Your task to perform on an android device: toggle wifi Image 0: 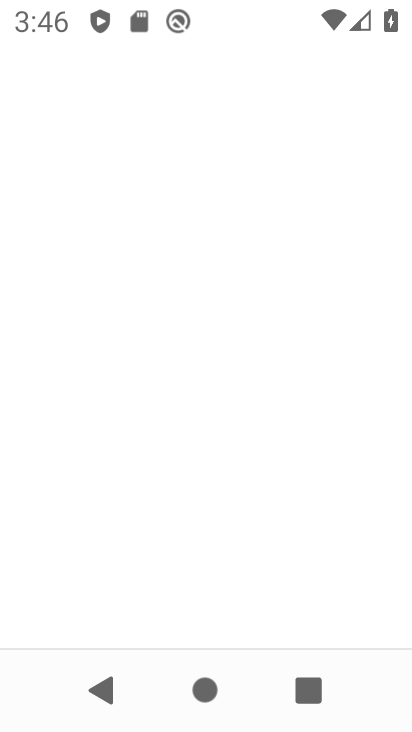
Step 0: drag from (12, 483) to (205, 157)
Your task to perform on an android device: toggle wifi Image 1: 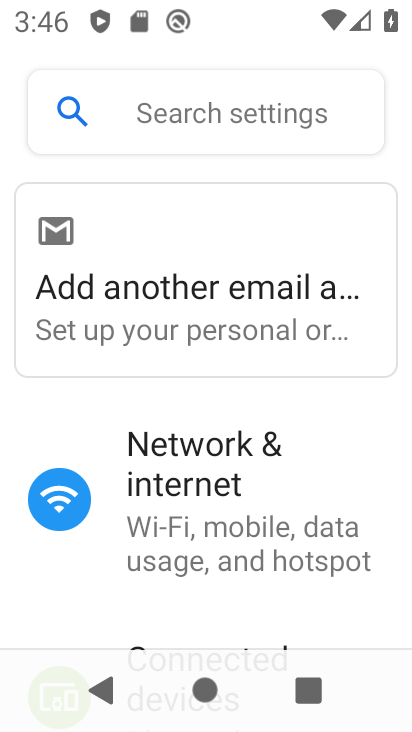
Step 1: press home button
Your task to perform on an android device: toggle wifi Image 2: 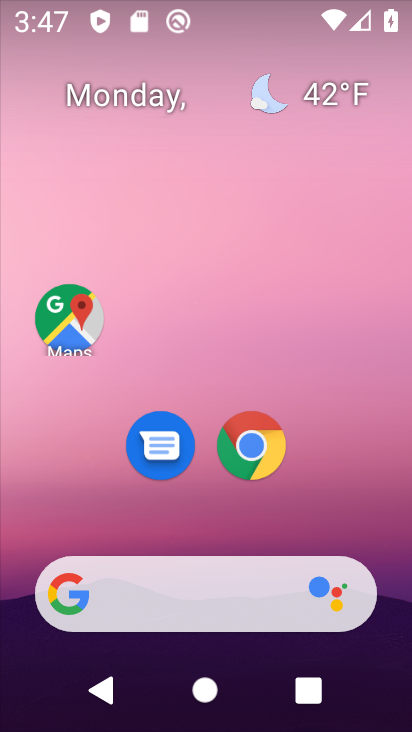
Step 2: drag from (145, 11) to (202, 420)
Your task to perform on an android device: toggle wifi Image 3: 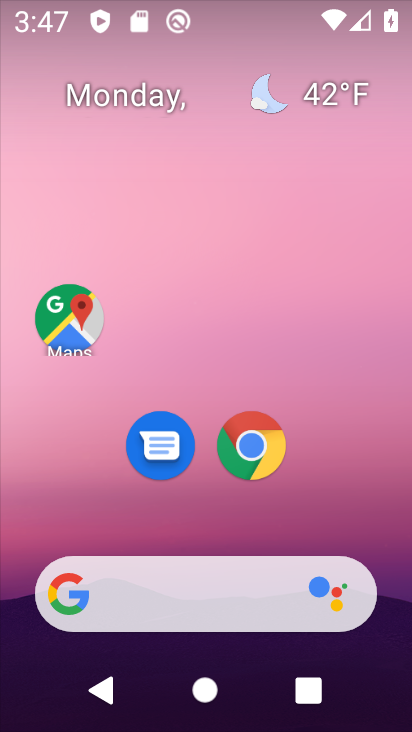
Step 3: drag from (251, 5) to (246, 446)
Your task to perform on an android device: toggle wifi Image 4: 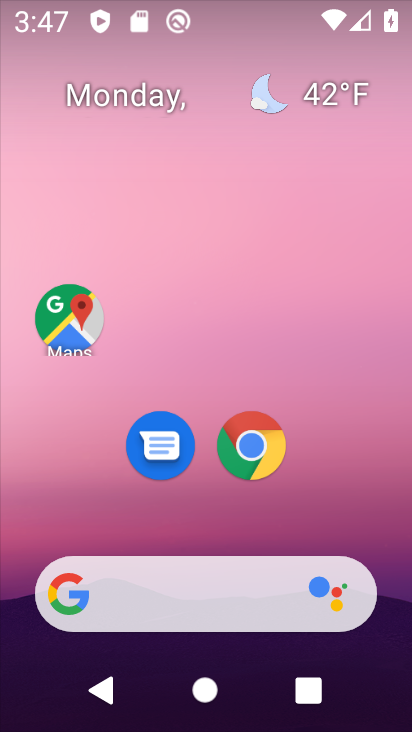
Step 4: drag from (217, 4) to (235, 464)
Your task to perform on an android device: toggle wifi Image 5: 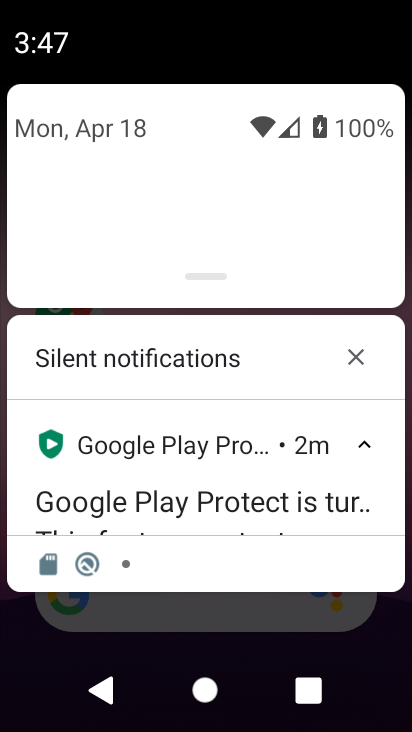
Step 5: drag from (186, 2) to (204, 399)
Your task to perform on an android device: toggle wifi Image 6: 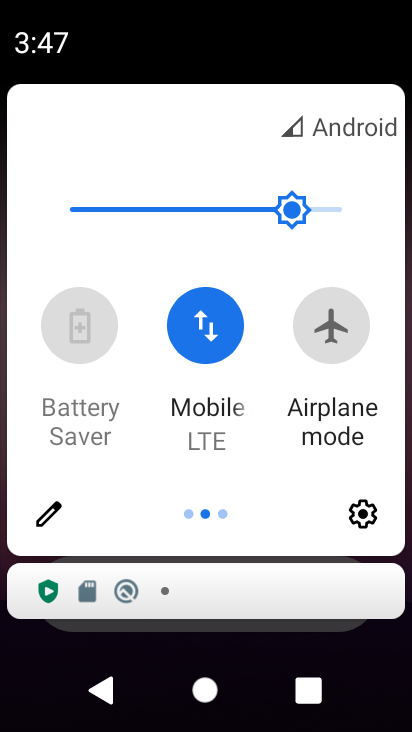
Step 6: drag from (60, 416) to (348, 428)
Your task to perform on an android device: toggle wifi Image 7: 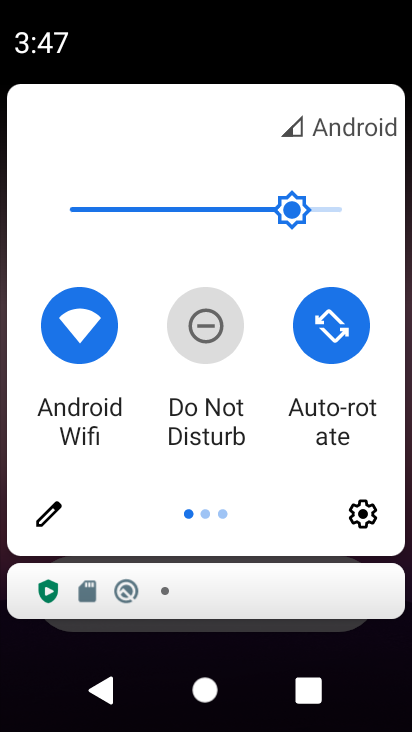
Step 7: click (91, 336)
Your task to perform on an android device: toggle wifi Image 8: 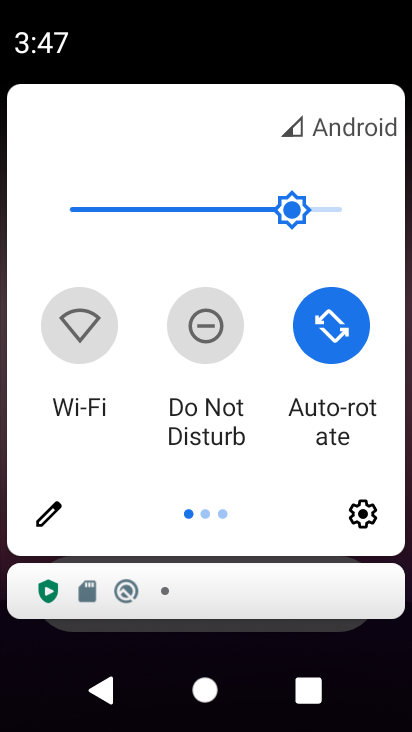
Step 8: task complete